Your task to perform on an android device: Go to sound settings Image 0: 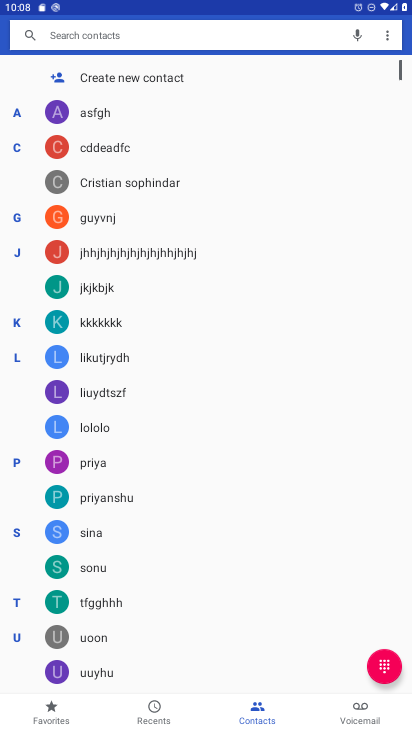
Step 0: drag from (276, 624) to (256, 199)
Your task to perform on an android device: Go to sound settings Image 1: 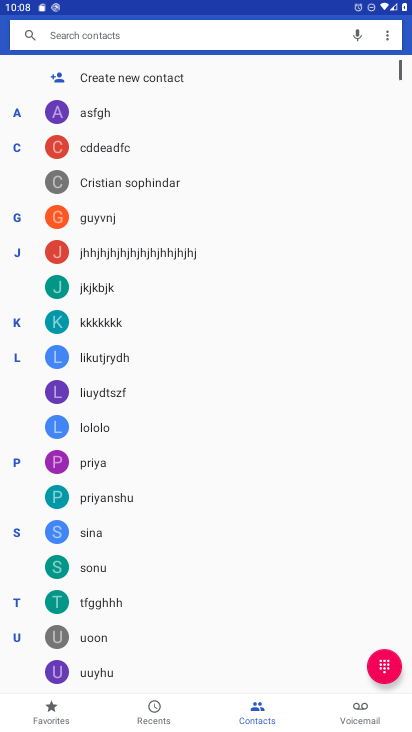
Step 1: press home button
Your task to perform on an android device: Go to sound settings Image 2: 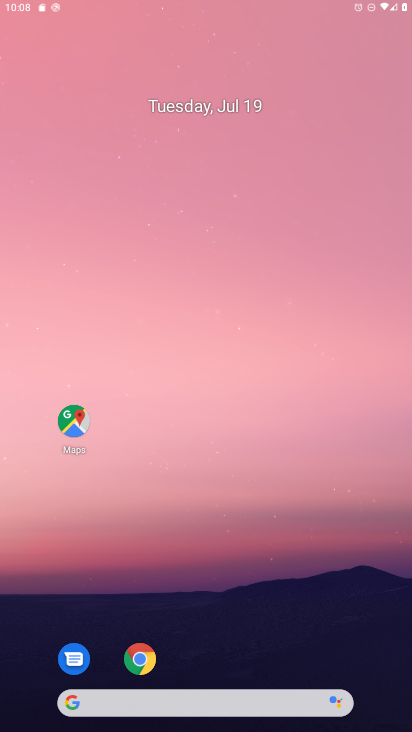
Step 2: drag from (210, 665) to (219, 299)
Your task to perform on an android device: Go to sound settings Image 3: 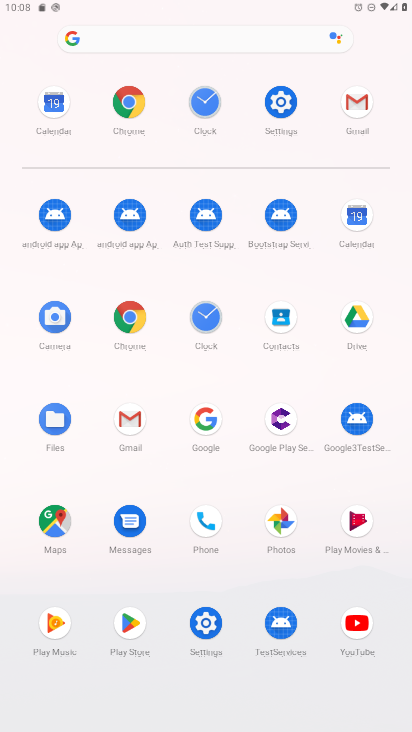
Step 3: click (212, 612)
Your task to perform on an android device: Go to sound settings Image 4: 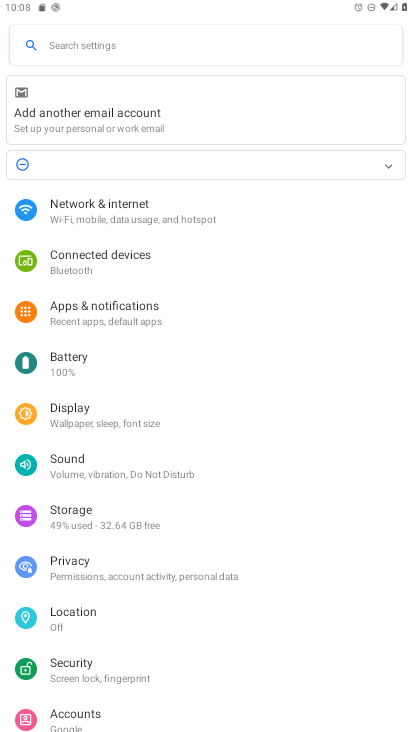
Step 4: click (103, 462)
Your task to perform on an android device: Go to sound settings Image 5: 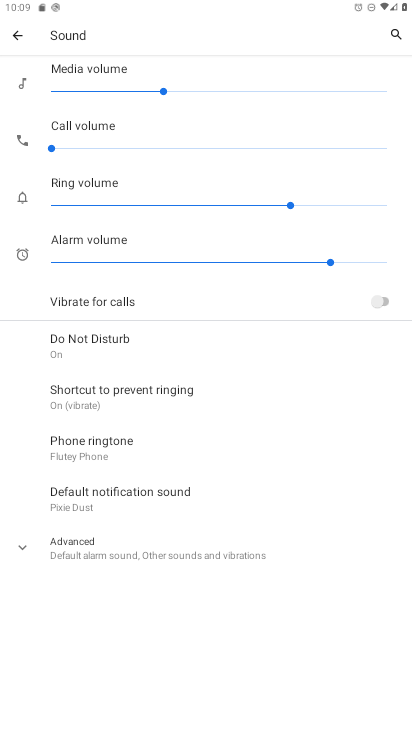
Step 5: task complete